Your task to perform on an android device: turn off picture-in-picture Image 0: 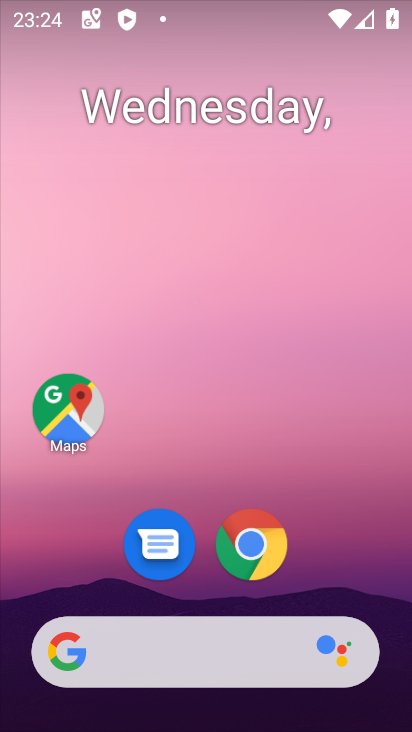
Step 0: drag from (345, 572) to (246, 4)
Your task to perform on an android device: turn off picture-in-picture Image 1: 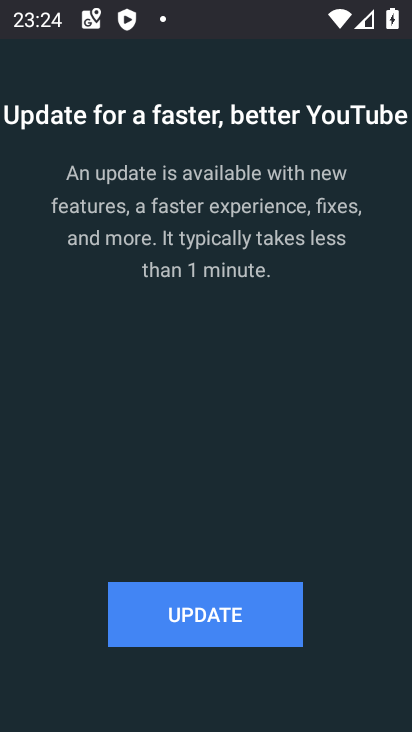
Step 1: press home button
Your task to perform on an android device: turn off picture-in-picture Image 2: 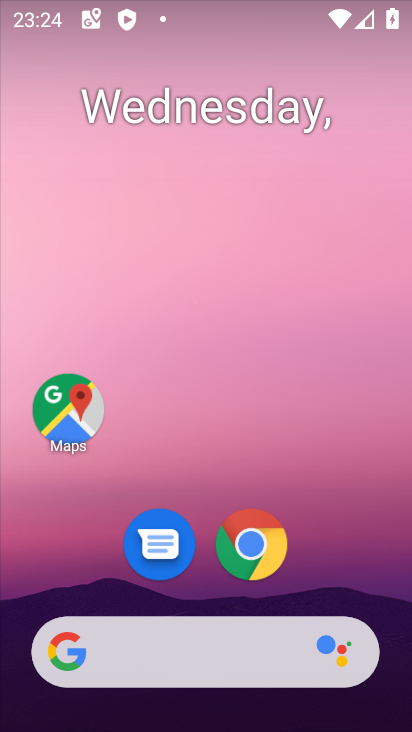
Step 2: click (258, 537)
Your task to perform on an android device: turn off picture-in-picture Image 3: 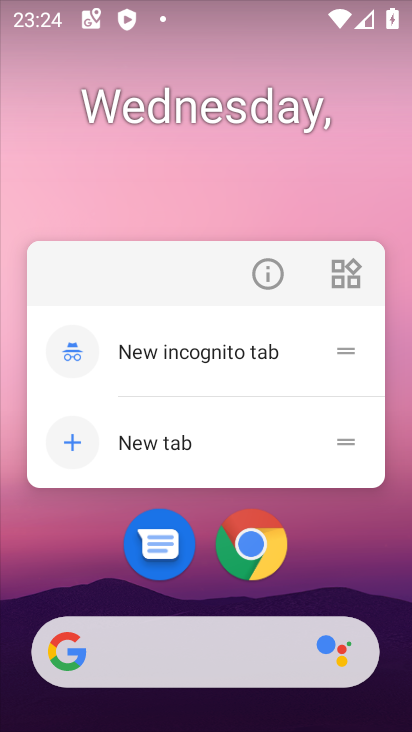
Step 3: click (278, 290)
Your task to perform on an android device: turn off picture-in-picture Image 4: 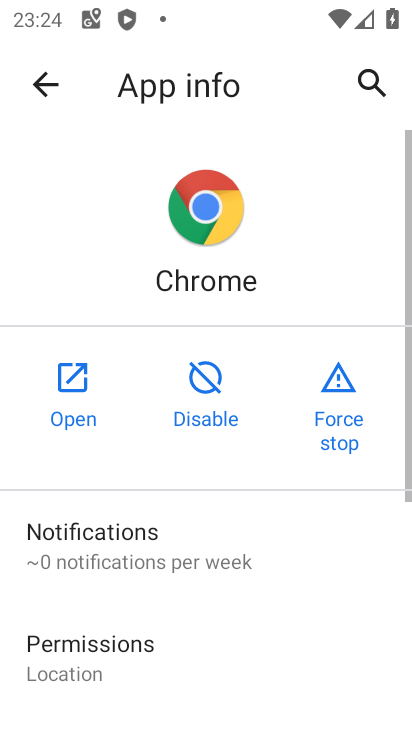
Step 4: drag from (267, 655) to (240, 213)
Your task to perform on an android device: turn off picture-in-picture Image 5: 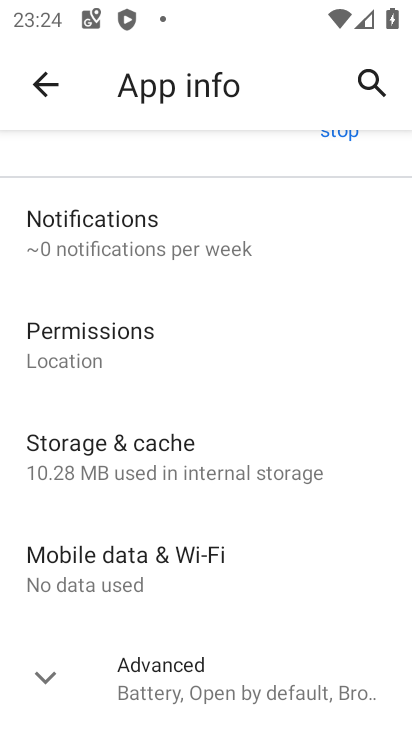
Step 5: drag from (299, 651) to (270, 501)
Your task to perform on an android device: turn off picture-in-picture Image 6: 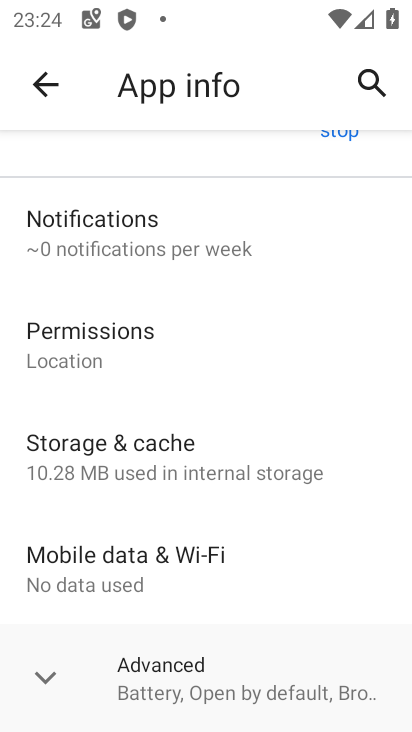
Step 6: click (243, 678)
Your task to perform on an android device: turn off picture-in-picture Image 7: 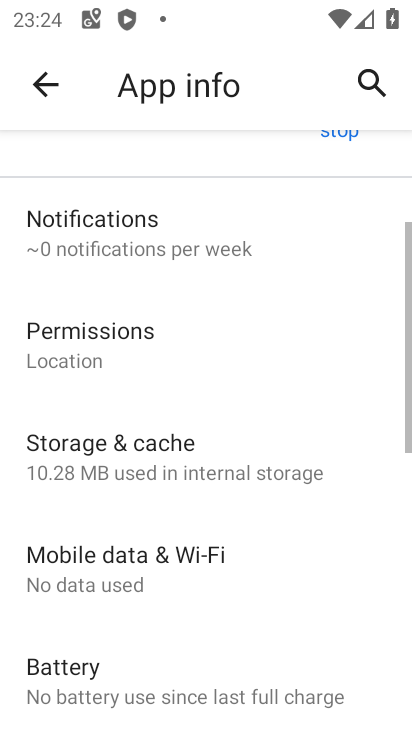
Step 7: drag from (228, 655) to (170, 240)
Your task to perform on an android device: turn off picture-in-picture Image 8: 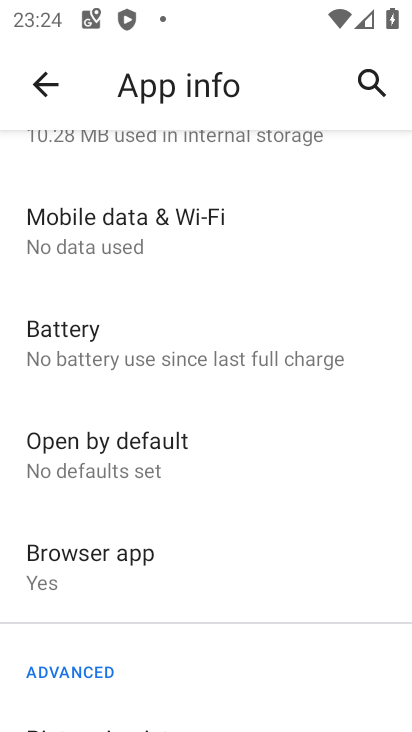
Step 8: drag from (204, 603) to (186, 327)
Your task to perform on an android device: turn off picture-in-picture Image 9: 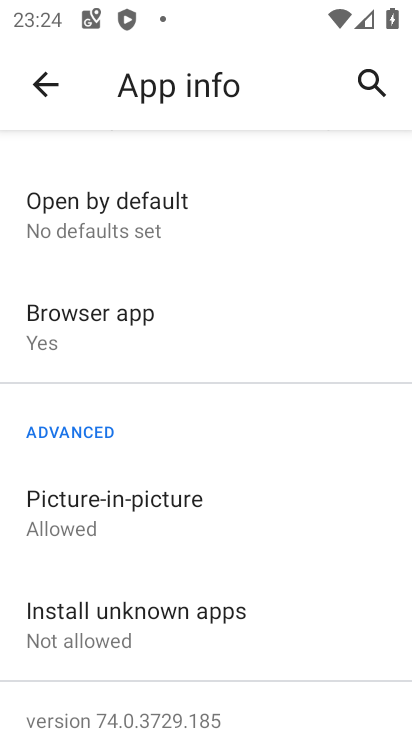
Step 9: click (171, 526)
Your task to perform on an android device: turn off picture-in-picture Image 10: 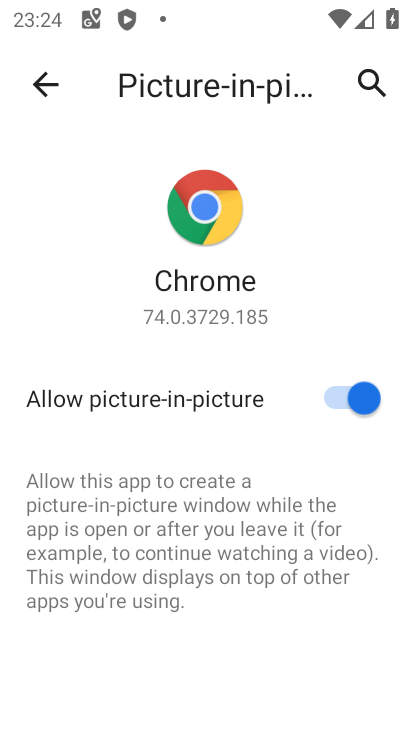
Step 10: click (287, 398)
Your task to perform on an android device: turn off picture-in-picture Image 11: 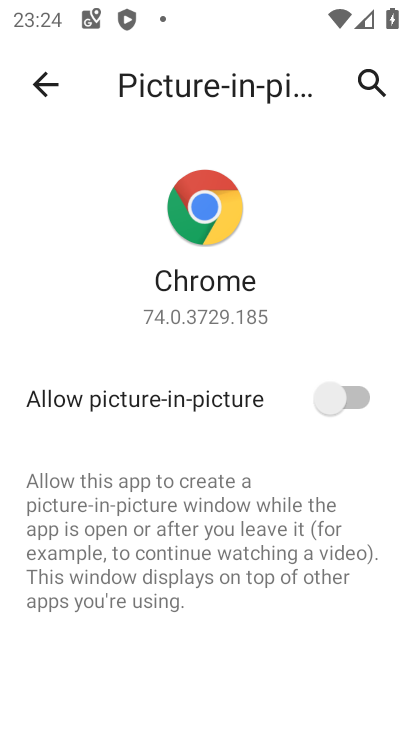
Step 11: task complete